Your task to perform on an android device: Turn off the flashlight Image 0: 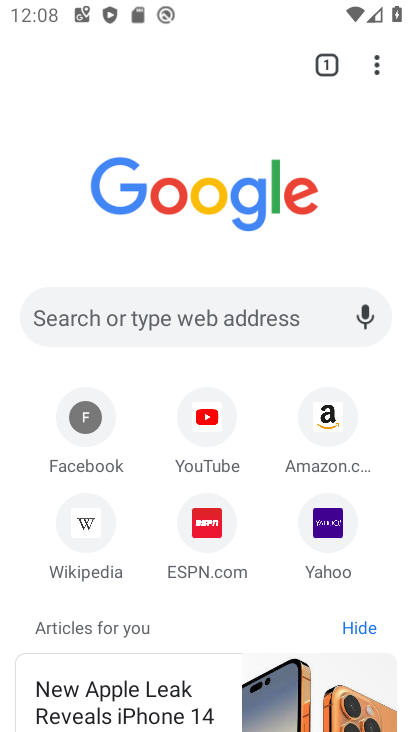
Step 0: press home button
Your task to perform on an android device: Turn off the flashlight Image 1: 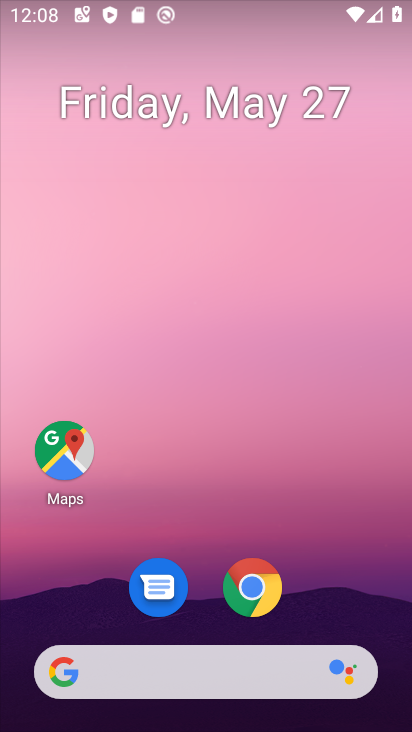
Step 1: drag from (214, 5) to (149, 662)
Your task to perform on an android device: Turn off the flashlight Image 2: 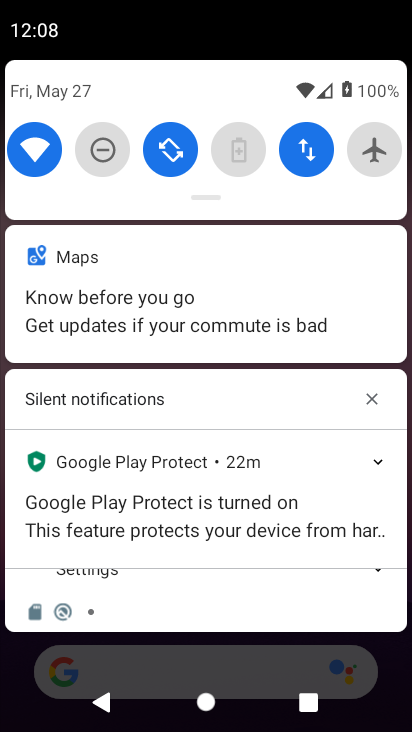
Step 2: drag from (203, 202) to (177, 576)
Your task to perform on an android device: Turn off the flashlight Image 3: 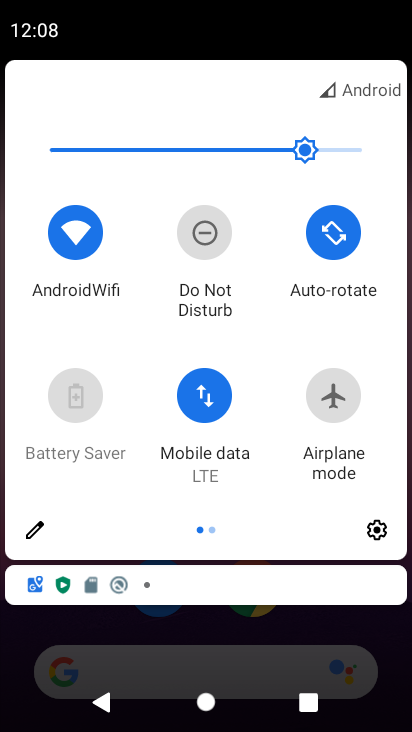
Step 3: click (37, 524)
Your task to perform on an android device: Turn off the flashlight Image 4: 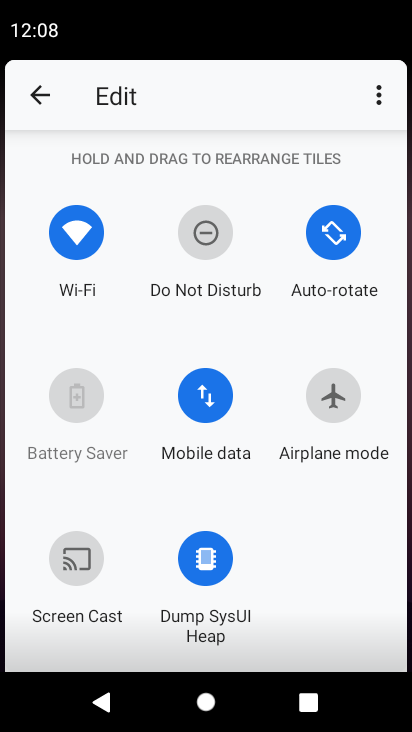
Step 4: task complete